Your task to perform on an android device: Open Wikipedia Image 0: 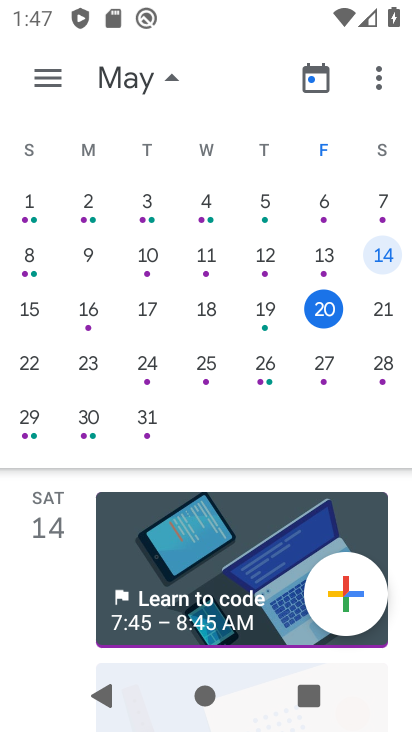
Step 0: press home button
Your task to perform on an android device: Open Wikipedia Image 1: 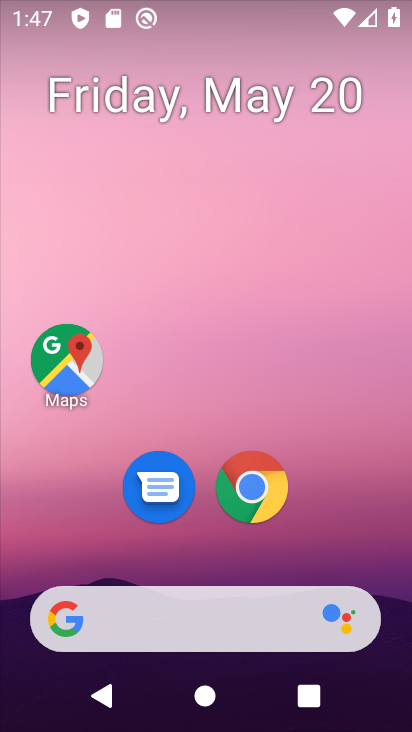
Step 1: drag from (383, 454) to (343, 249)
Your task to perform on an android device: Open Wikipedia Image 2: 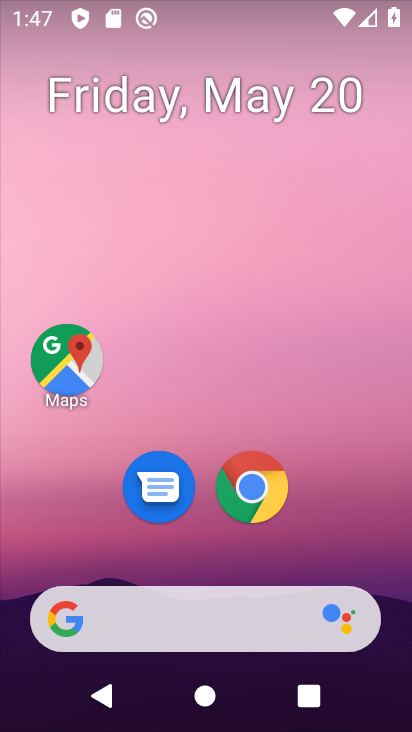
Step 2: drag from (347, 506) to (305, 91)
Your task to perform on an android device: Open Wikipedia Image 3: 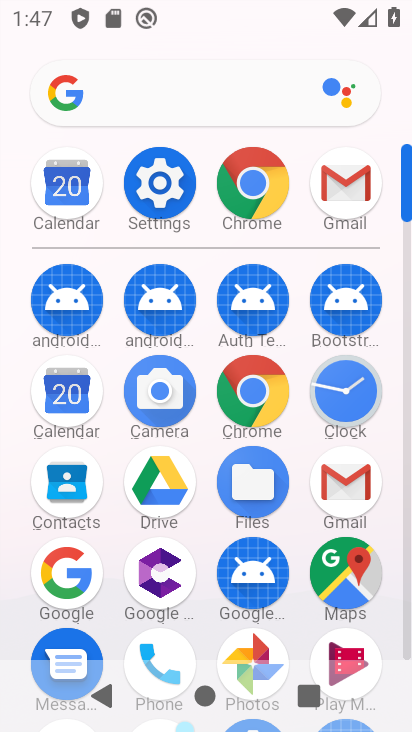
Step 3: click (254, 169)
Your task to perform on an android device: Open Wikipedia Image 4: 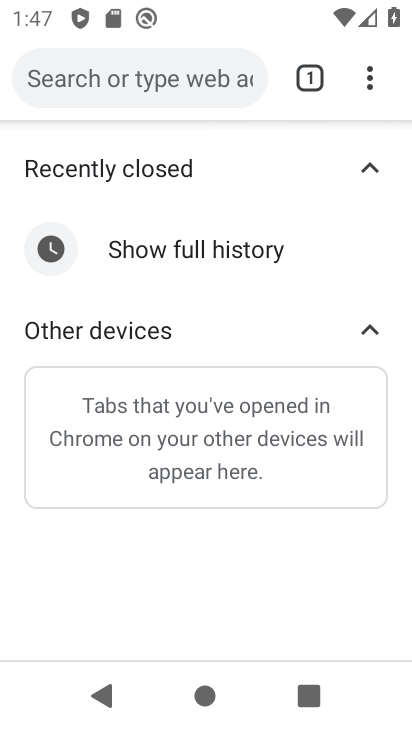
Step 4: click (206, 87)
Your task to perform on an android device: Open Wikipedia Image 5: 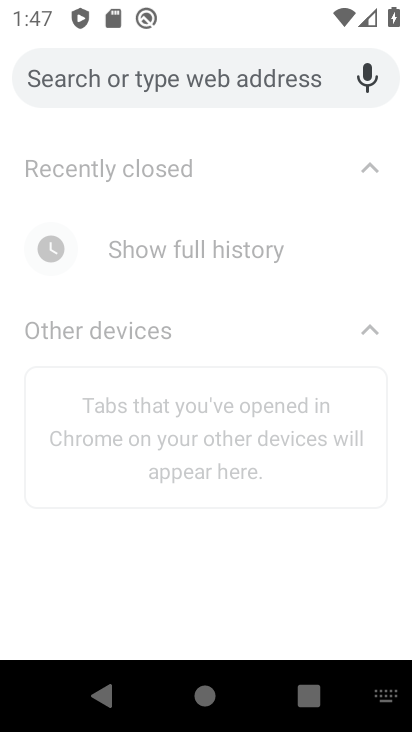
Step 5: type "wikipedia"
Your task to perform on an android device: Open Wikipedia Image 6: 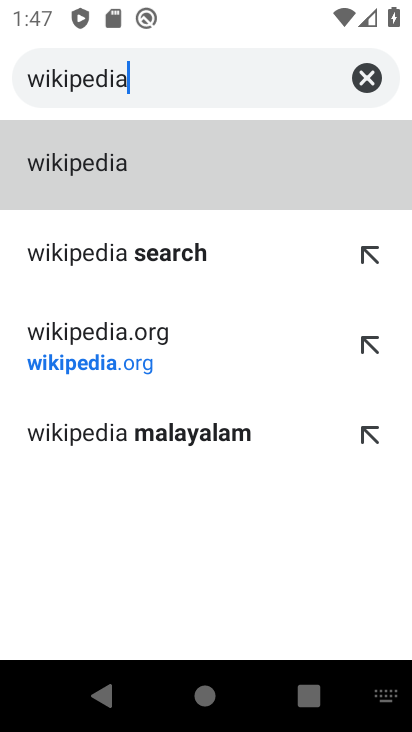
Step 6: click (151, 177)
Your task to perform on an android device: Open Wikipedia Image 7: 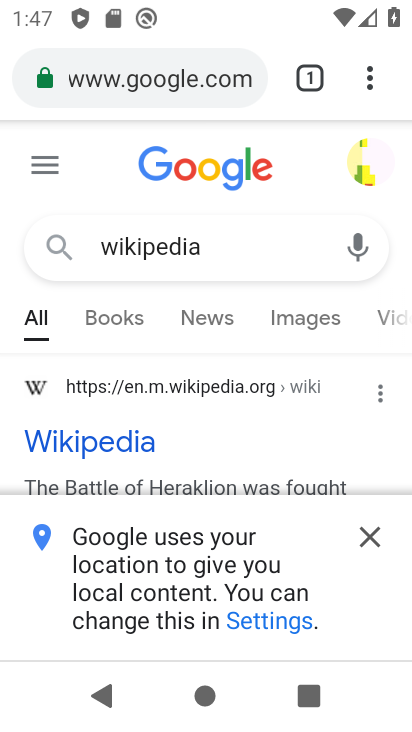
Step 7: click (96, 466)
Your task to perform on an android device: Open Wikipedia Image 8: 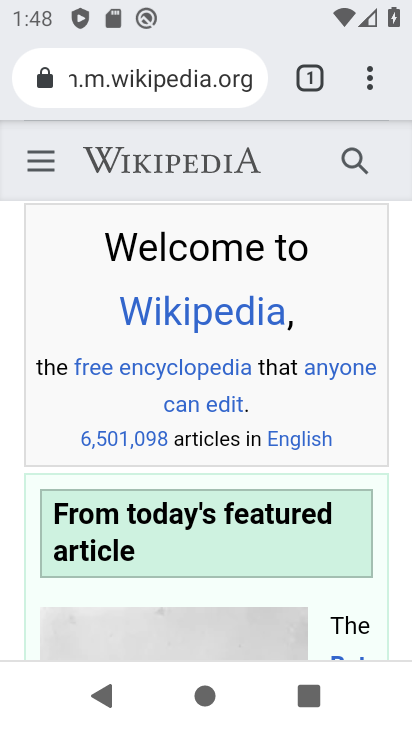
Step 8: task complete